Your task to perform on an android device: Go to Android settings Image 0: 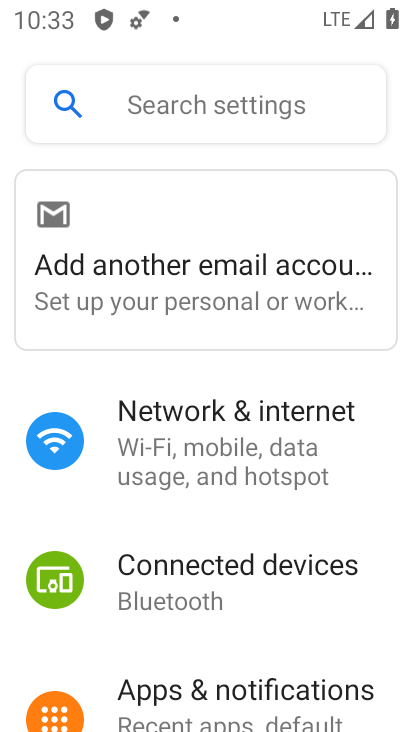
Step 0: drag from (207, 690) to (208, 159)
Your task to perform on an android device: Go to Android settings Image 1: 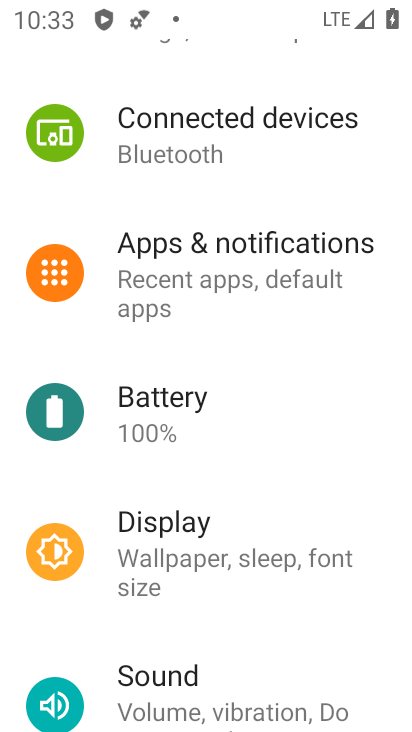
Step 1: drag from (234, 684) to (228, 235)
Your task to perform on an android device: Go to Android settings Image 2: 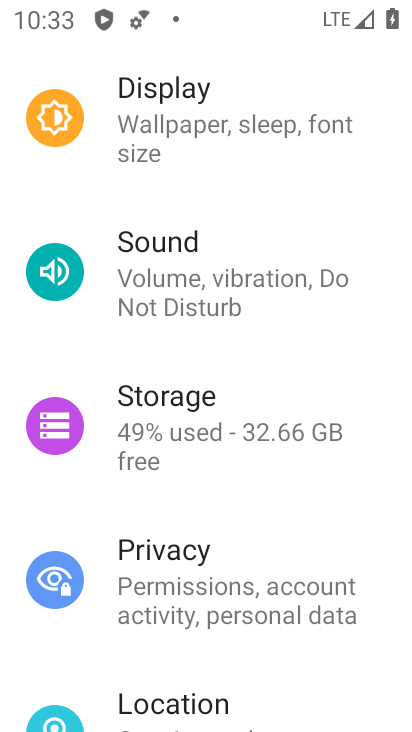
Step 2: drag from (184, 677) to (189, 258)
Your task to perform on an android device: Go to Android settings Image 3: 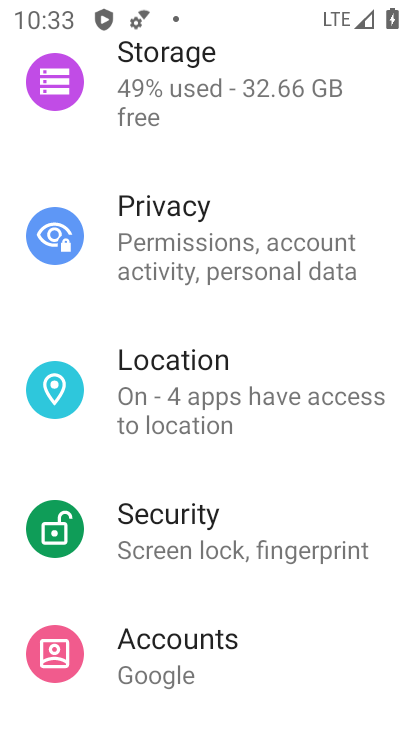
Step 3: drag from (109, 689) to (111, 250)
Your task to perform on an android device: Go to Android settings Image 4: 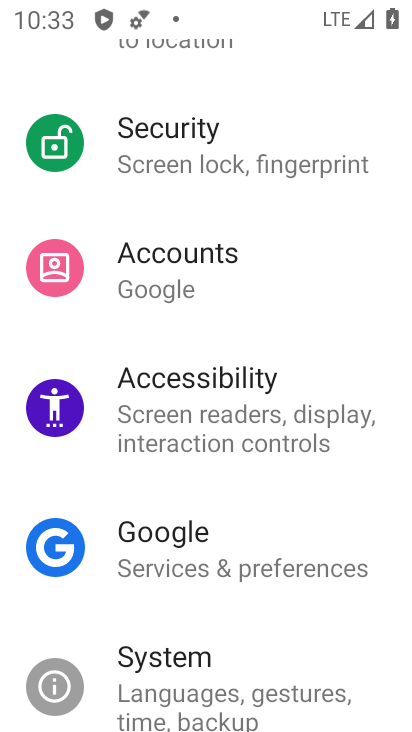
Step 4: drag from (185, 716) to (228, 224)
Your task to perform on an android device: Go to Android settings Image 5: 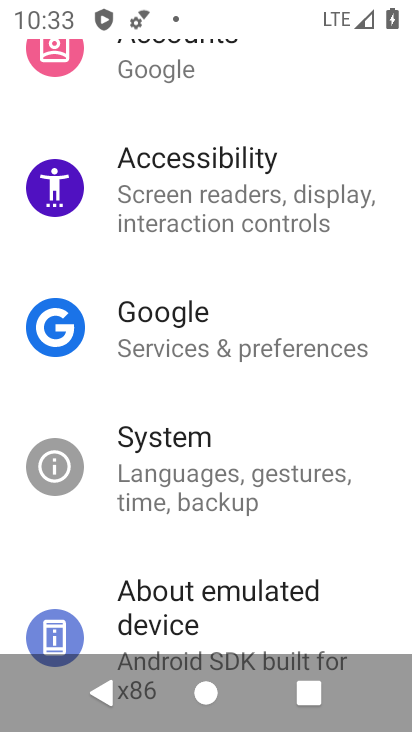
Step 5: click (197, 598)
Your task to perform on an android device: Go to Android settings Image 6: 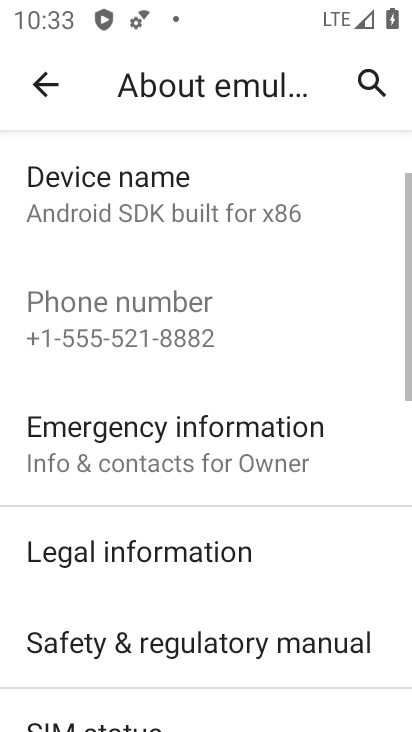
Step 6: drag from (197, 598) to (244, 263)
Your task to perform on an android device: Go to Android settings Image 7: 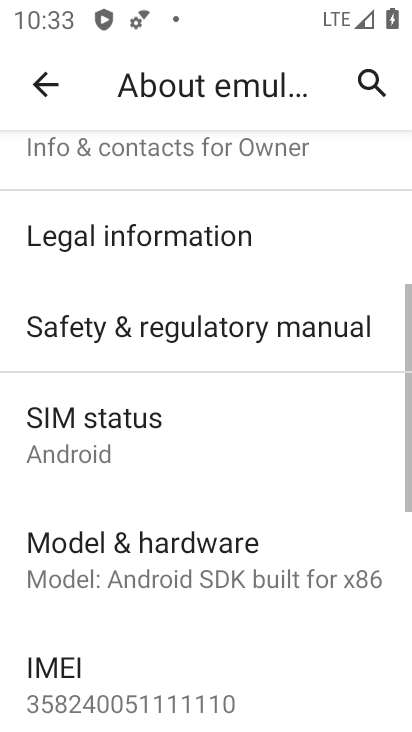
Step 7: drag from (306, 677) to (305, 329)
Your task to perform on an android device: Go to Android settings Image 8: 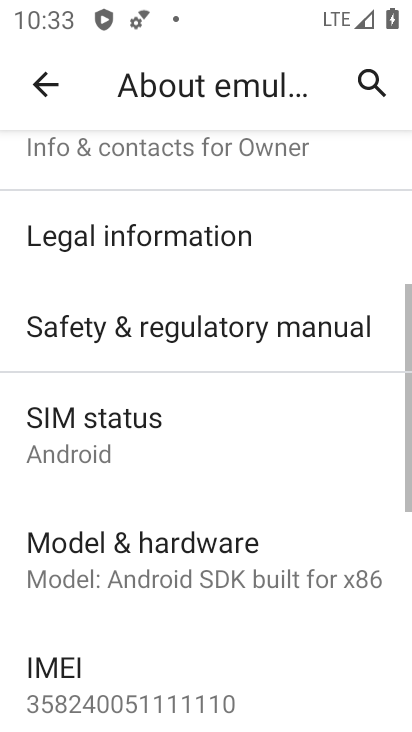
Step 8: drag from (225, 702) to (252, 318)
Your task to perform on an android device: Go to Android settings Image 9: 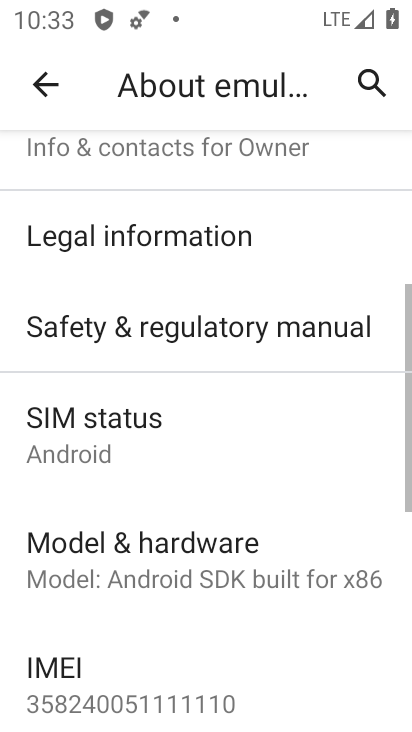
Step 9: click (411, 423)
Your task to perform on an android device: Go to Android settings Image 10: 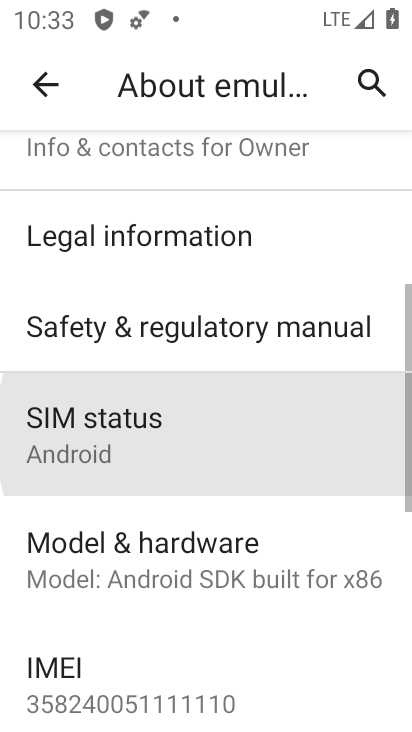
Step 10: drag from (403, 465) to (354, 274)
Your task to perform on an android device: Go to Android settings Image 11: 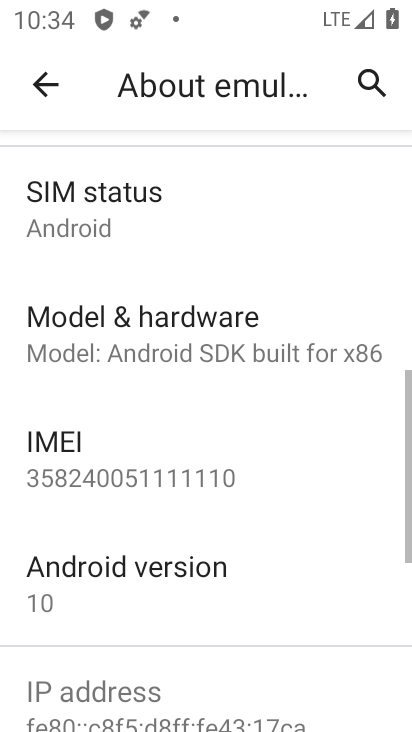
Step 11: click (364, 208)
Your task to perform on an android device: Go to Android settings Image 12: 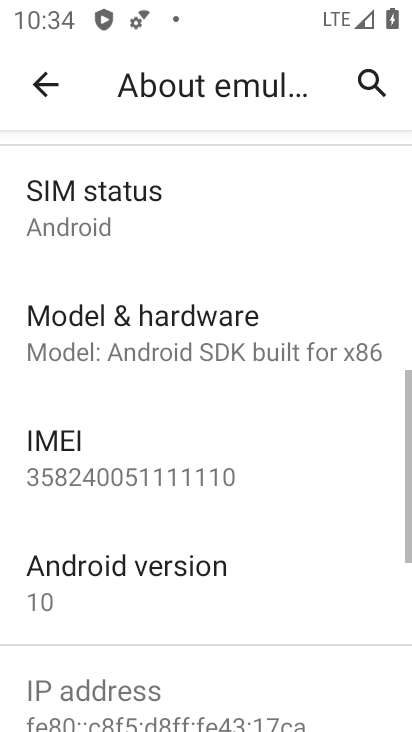
Step 12: click (139, 577)
Your task to perform on an android device: Go to Android settings Image 13: 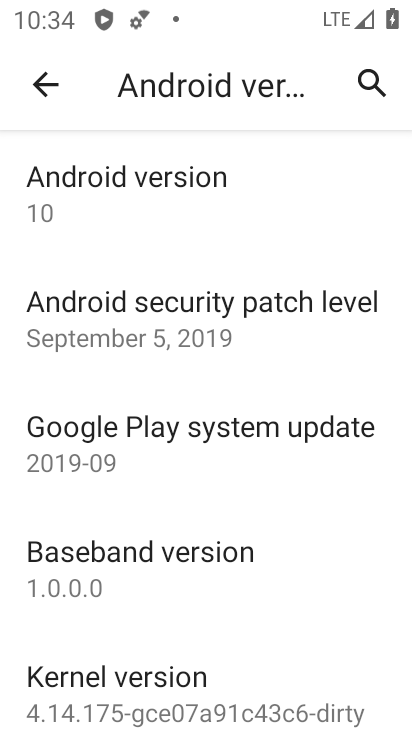
Step 13: task complete